Your task to perform on an android device: Open Google Chrome and open the bookmarks view Image 0: 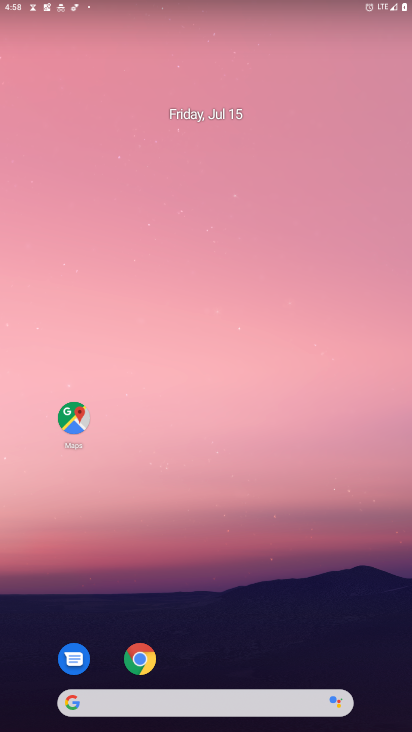
Step 0: drag from (240, 707) to (230, 12)
Your task to perform on an android device: Open Google Chrome and open the bookmarks view Image 1: 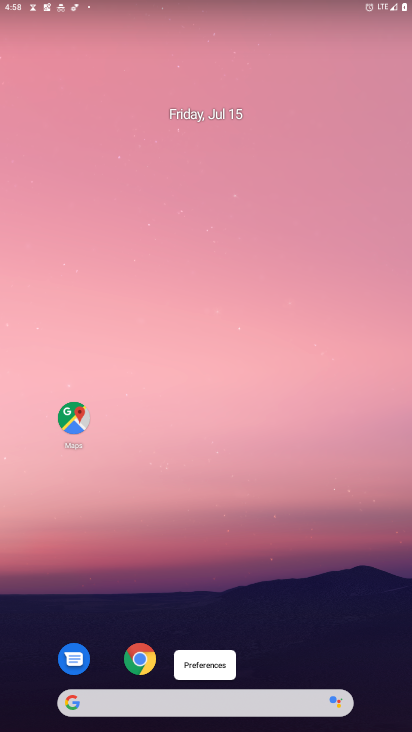
Step 1: drag from (238, 637) to (221, 62)
Your task to perform on an android device: Open Google Chrome and open the bookmarks view Image 2: 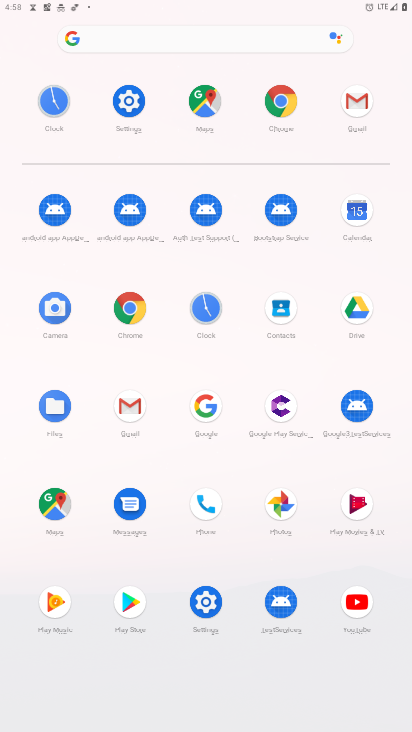
Step 2: click (121, 310)
Your task to perform on an android device: Open Google Chrome and open the bookmarks view Image 3: 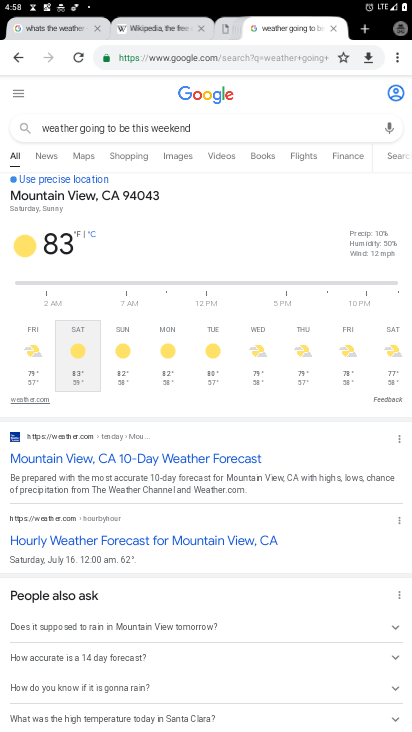
Step 3: drag from (397, 50) to (305, 120)
Your task to perform on an android device: Open Google Chrome and open the bookmarks view Image 4: 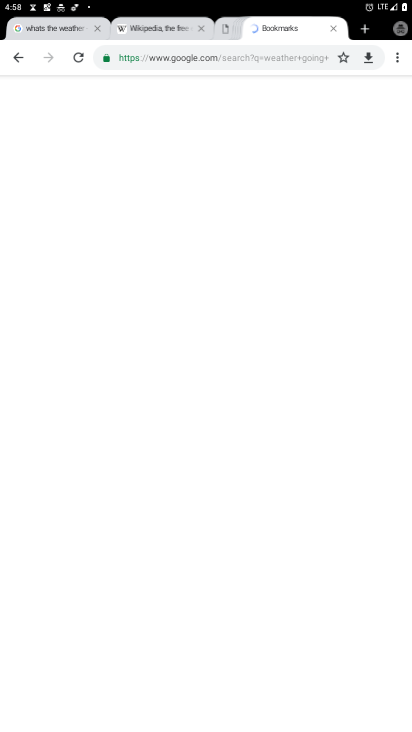
Step 4: click (303, 121)
Your task to perform on an android device: Open Google Chrome and open the bookmarks view Image 5: 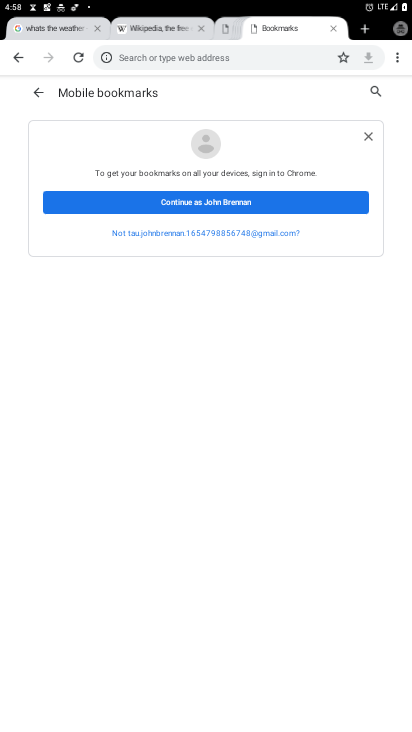
Step 5: task complete